Your task to perform on an android device: Open the calendar app, open the side menu, and click the "Day" option Image 0: 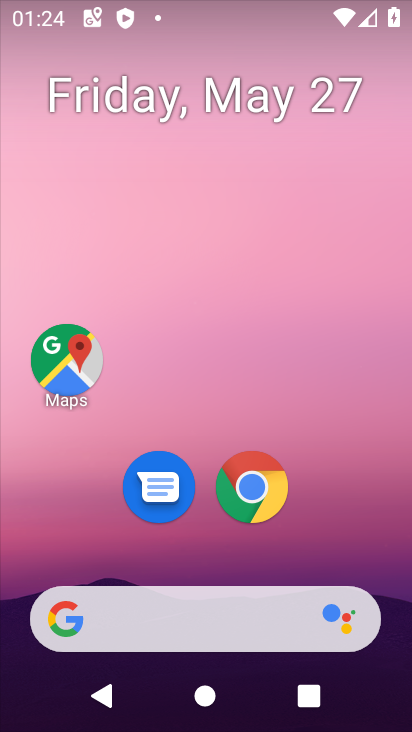
Step 0: drag from (152, 726) to (240, 11)
Your task to perform on an android device: Open the calendar app, open the side menu, and click the "Day" option Image 1: 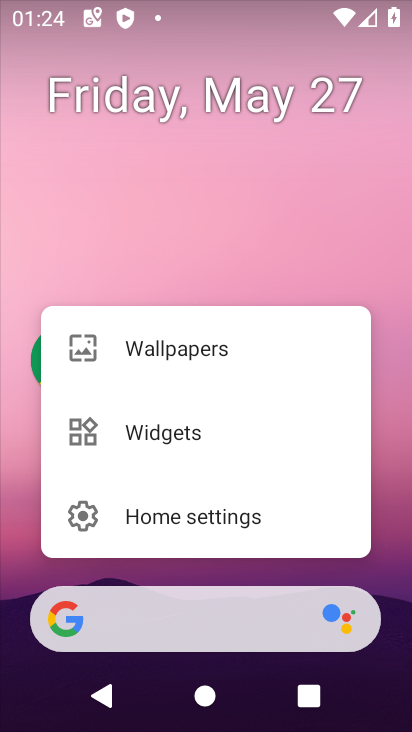
Step 1: press home button
Your task to perform on an android device: Open the calendar app, open the side menu, and click the "Day" option Image 2: 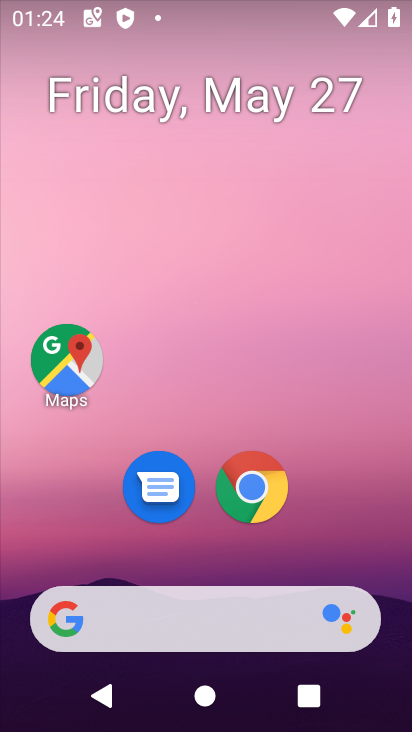
Step 2: drag from (162, 728) to (218, 68)
Your task to perform on an android device: Open the calendar app, open the side menu, and click the "Day" option Image 3: 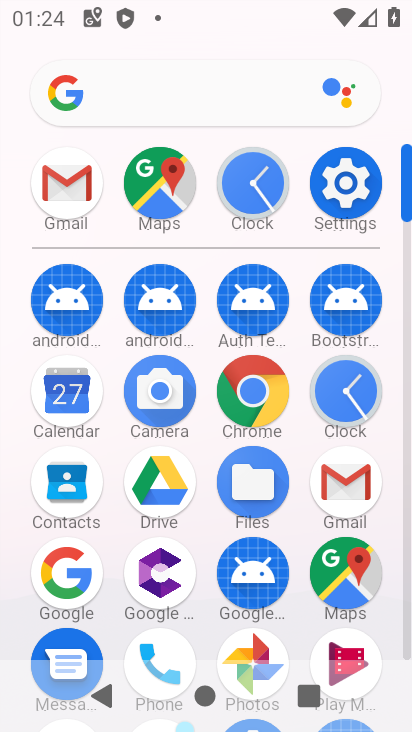
Step 3: click (59, 412)
Your task to perform on an android device: Open the calendar app, open the side menu, and click the "Day" option Image 4: 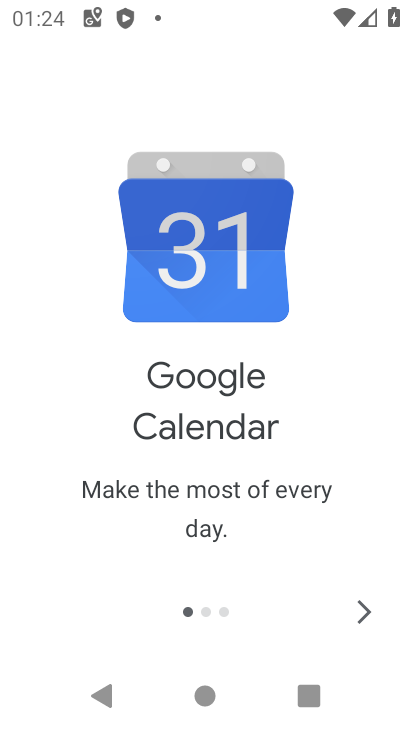
Step 4: click (372, 612)
Your task to perform on an android device: Open the calendar app, open the side menu, and click the "Day" option Image 5: 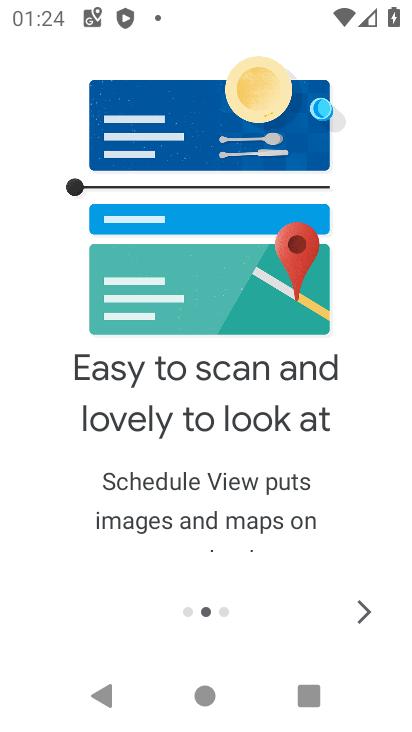
Step 5: click (372, 612)
Your task to perform on an android device: Open the calendar app, open the side menu, and click the "Day" option Image 6: 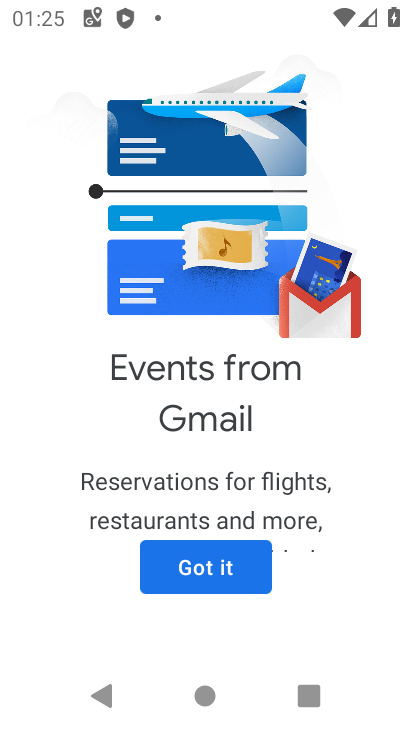
Step 6: click (240, 572)
Your task to perform on an android device: Open the calendar app, open the side menu, and click the "Day" option Image 7: 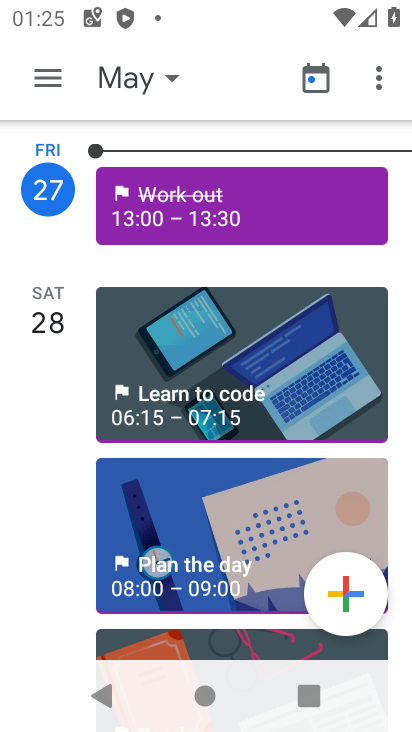
Step 7: click (43, 90)
Your task to perform on an android device: Open the calendar app, open the side menu, and click the "Day" option Image 8: 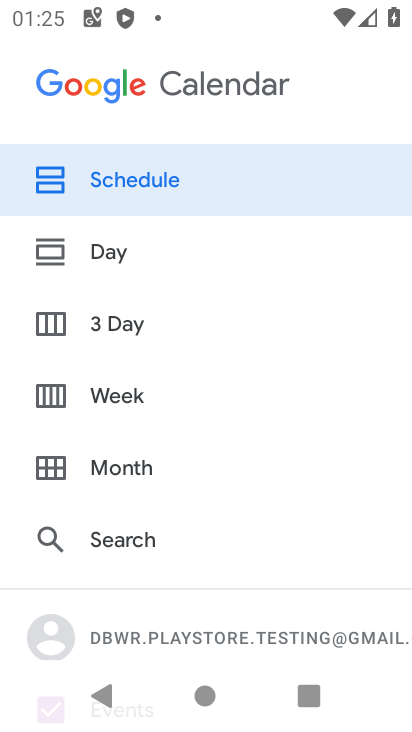
Step 8: click (107, 260)
Your task to perform on an android device: Open the calendar app, open the side menu, and click the "Day" option Image 9: 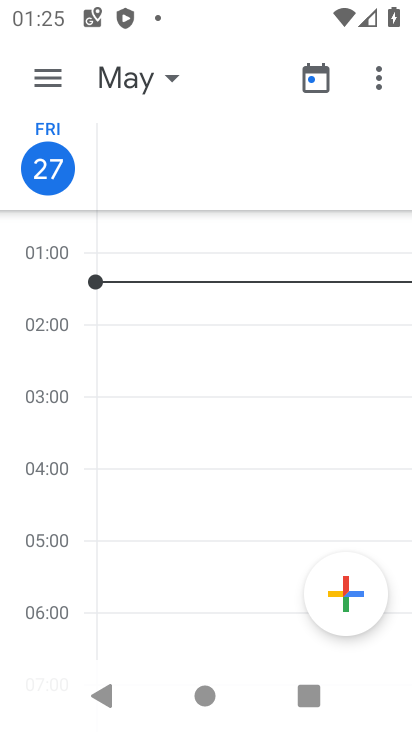
Step 9: task complete